Your task to perform on an android device: Empty the shopping cart on newegg. Add "usb-a" to the cart on newegg Image 0: 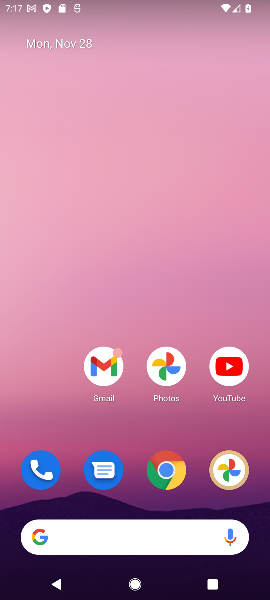
Step 0: drag from (135, 497) to (146, 224)
Your task to perform on an android device: Empty the shopping cart on newegg. Add "usb-a" to the cart on newegg Image 1: 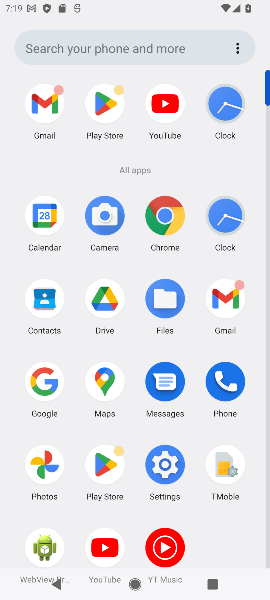
Step 1: click (168, 237)
Your task to perform on an android device: Empty the shopping cart on newegg. Add "usb-a" to the cart on newegg Image 2: 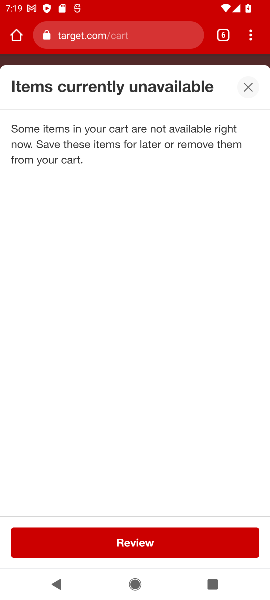
Step 2: click (89, 35)
Your task to perform on an android device: Empty the shopping cart on newegg. Add "usb-a" to the cart on newegg Image 3: 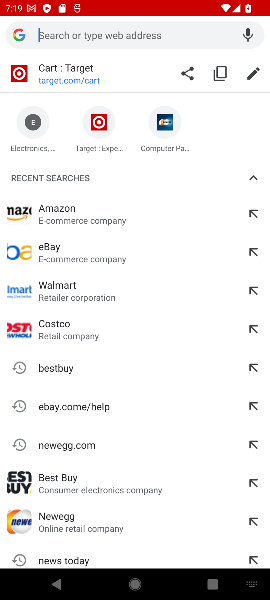
Step 3: type "newegg"
Your task to perform on an android device: Empty the shopping cart on newegg. Add "usb-a" to the cart on newegg Image 4: 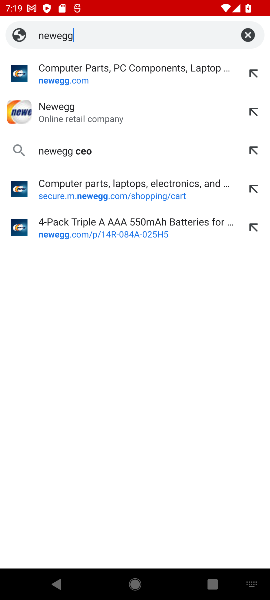
Step 4: click (52, 75)
Your task to perform on an android device: Empty the shopping cart on newegg. Add "usb-a" to the cart on newegg Image 5: 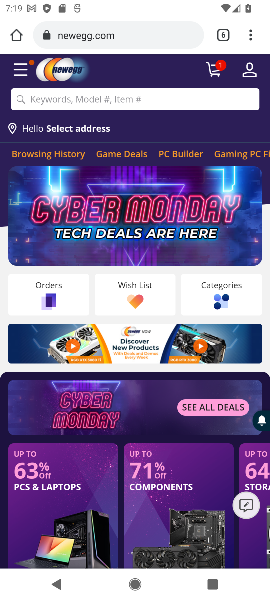
Step 5: click (66, 95)
Your task to perform on an android device: Empty the shopping cart on newegg. Add "usb-a" to the cart on newegg Image 6: 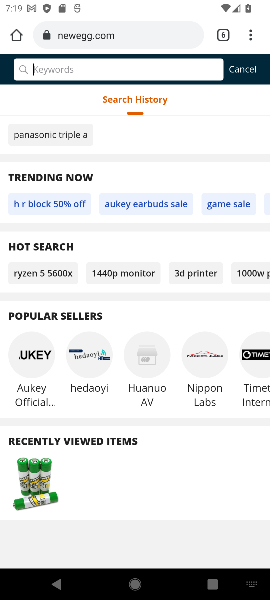
Step 6: type "usb-a"
Your task to perform on an android device: Empty the shopping cart on newegg. Add "usb-a" to the cart on newegg Image 7: 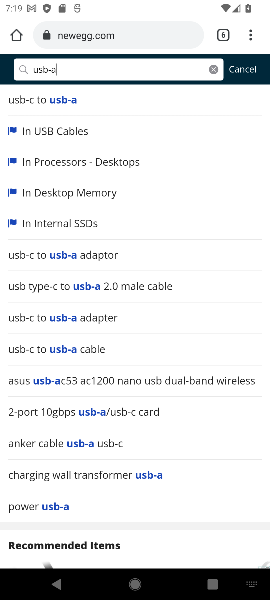
Step 7: click (75, 134)
Your task to perform on an android device: Empty the shopping cart on newegg. Add "usb-a" to the cart on newegg Image 8: 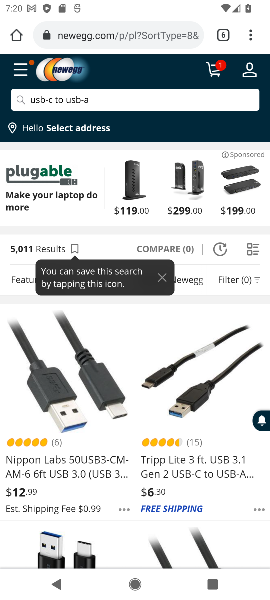
Step 8: click (69, 424)
Your task to perform on an android device: Empty the shopping cart on newegg. Add "usb-a" to the cart on newegg Image 9: 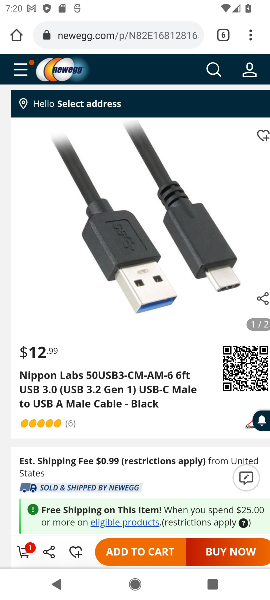
Step 9: click (130, 553)
Your task to perform on an android device: Empty the shopping cart on newegg. Add "usb-a" to the cart on newegg Image 10: 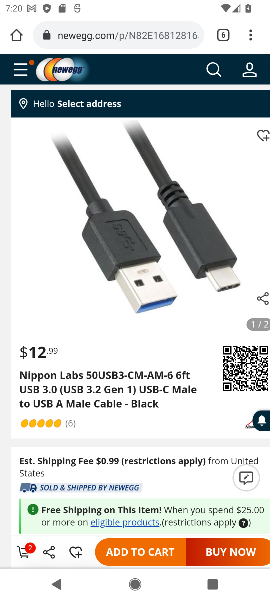
Step 10: task complete